Your task to perform on an android device: What's the weather going to be this weekend? Image 0: 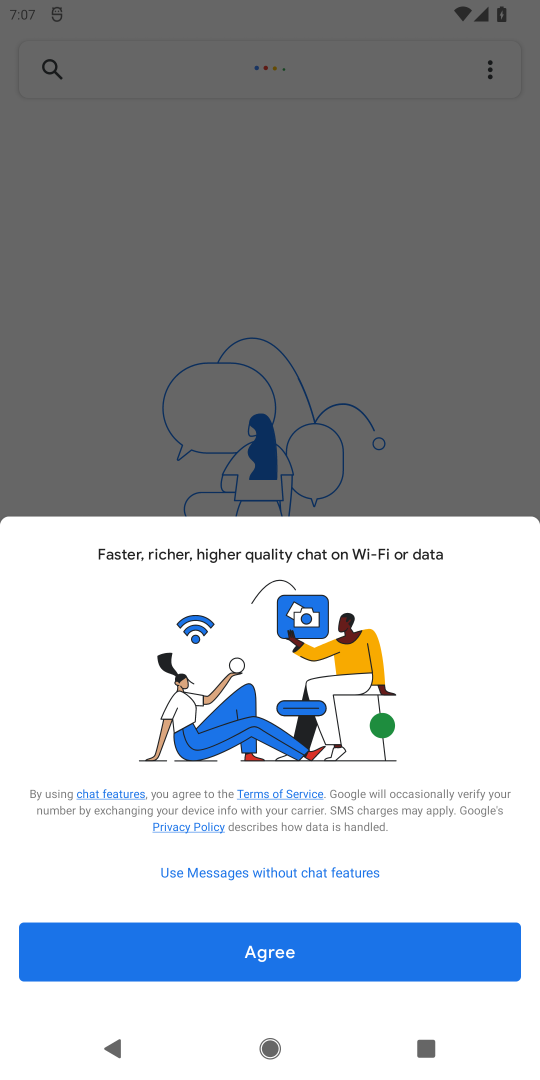
Step 0: press home button
Your task to perform on an android device: What's the weather going to be this weekend? Image 1: 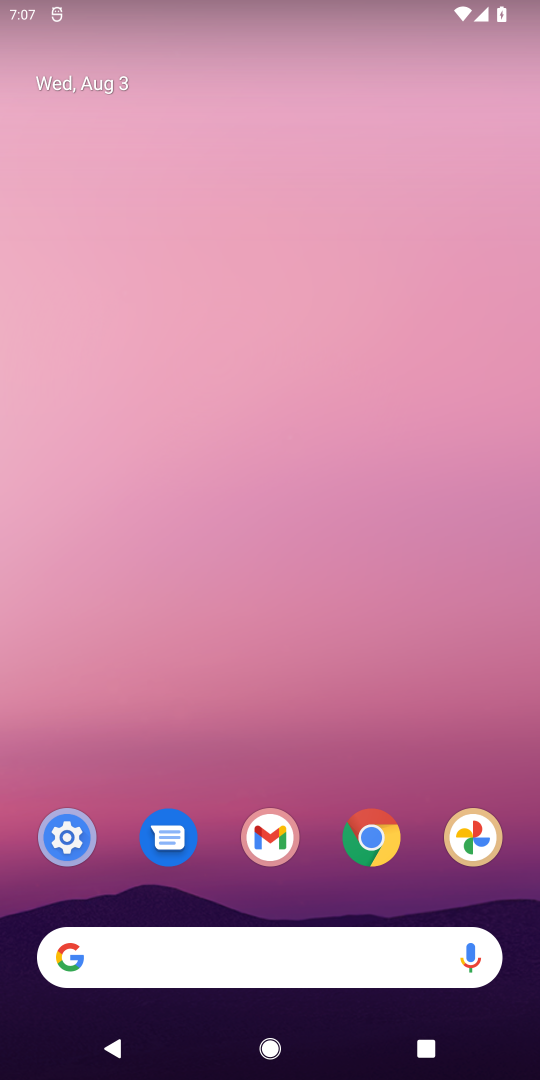
Step 1: click (65, 964)
Your task to perform on an android device: What's the weather going to be this weekend? Image 2: 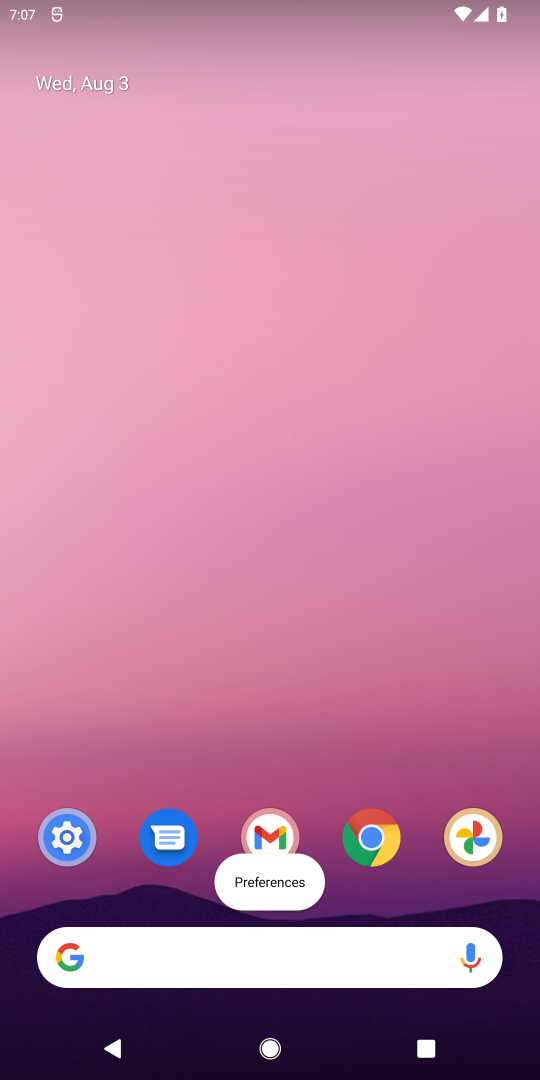
Step 2: click (67, 955)
Your task to perform on an android device: What's the weather going to be this weekend? Image 3: 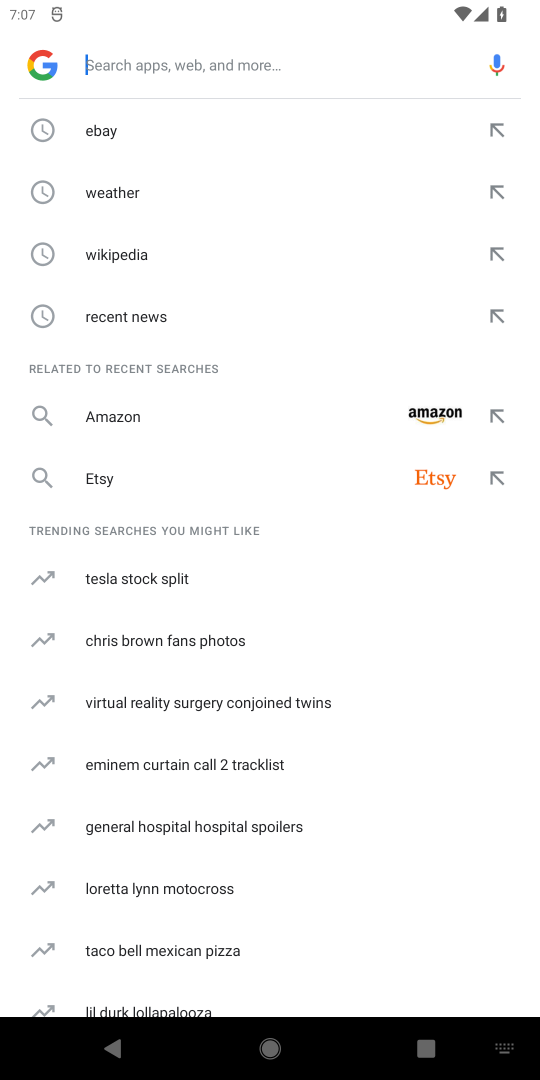
Step 3: type "What's the weather going to be this weekend?"
Your task to perform on an android device: What's the weather going to be this weekend? Image 4: 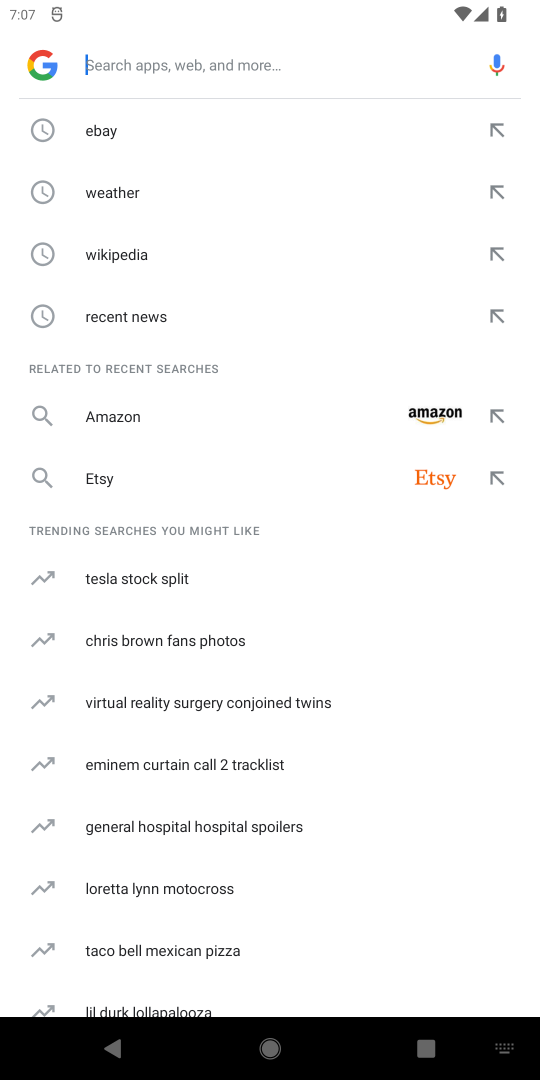
Step 4: click (153, 67)
Your task to perform on an android device: What's the weather going to be this weekend? Image 5: 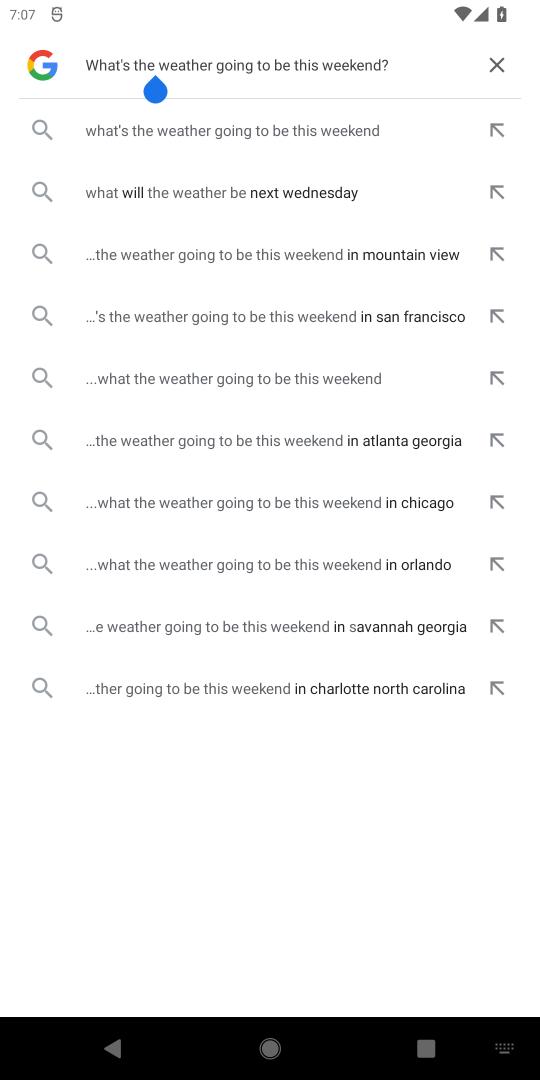
Step 5: press enter
Your task to perform on an android device: What's the weather going to be this weekend? Image 6: 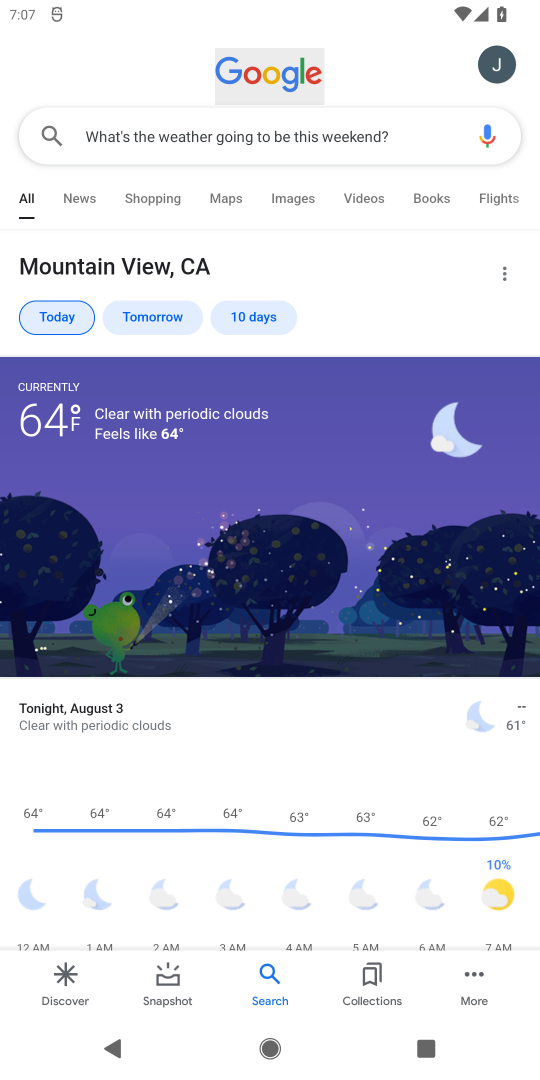
Step 6: task complete